Your task to perform on an android device: Show me recent news Image 0: 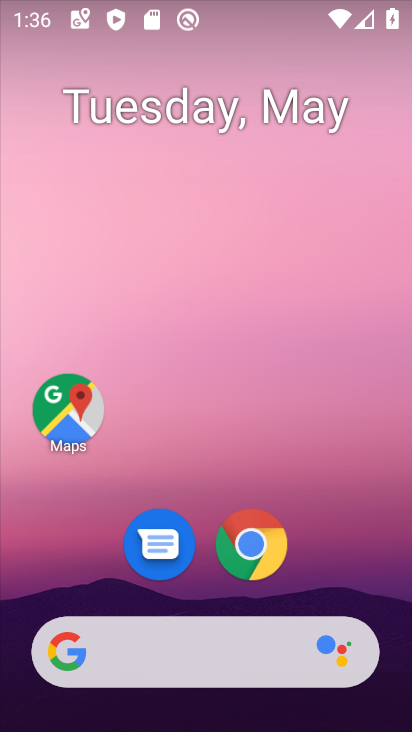
Step 0: click (253, 538)
Your task to perform on an android device: Show me recent news Image 1: 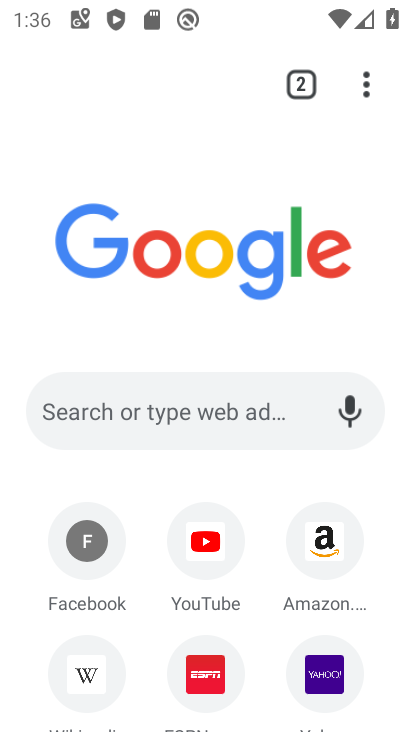
Step 1: click (215, 415)
Your task to perform on an android device: Show me recent news Image 2: 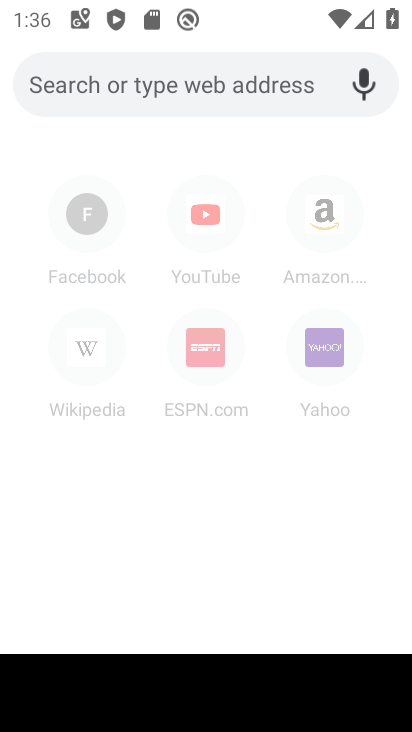
Step 2: type "news"
Your task to perform on an android device: Show me recent news Image 3: 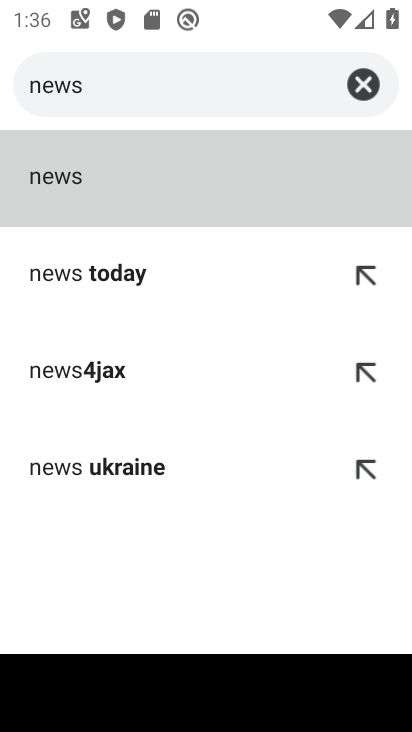
Step 3: click (67, 188)
Your task to perform on an android device: Show me recent news Image 4: 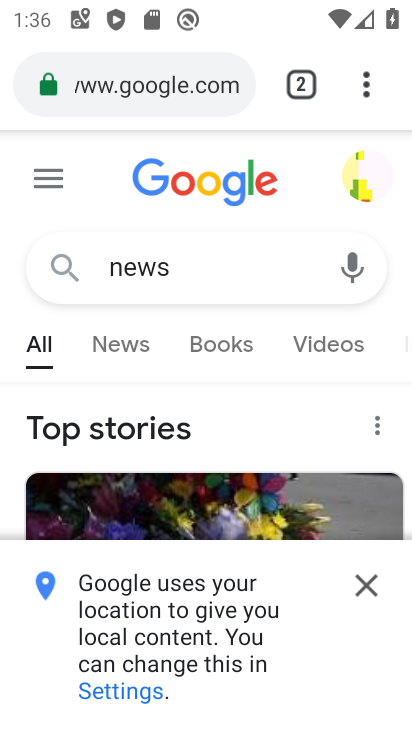
Step 4: click (104, 341)
Your task to perform on an android device: Show me recent news Image 5: 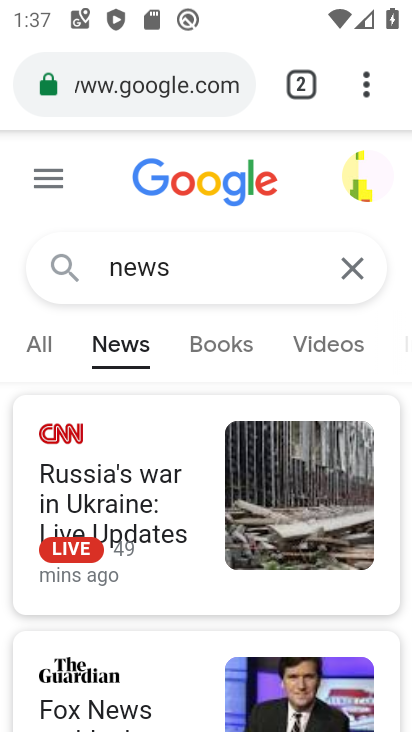
Step 5: task complete